Your task to perform on an android device: toggle location history Image 0: 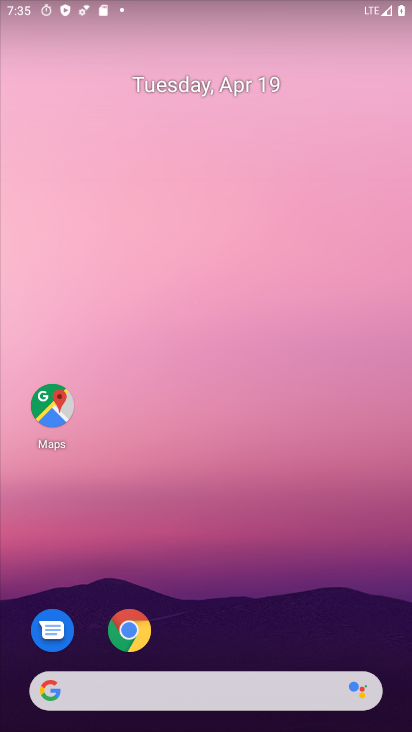
Step 0: drag from (188, 654) to (47, 14)
Your task to perform on an android device: toggle location history Image 1: 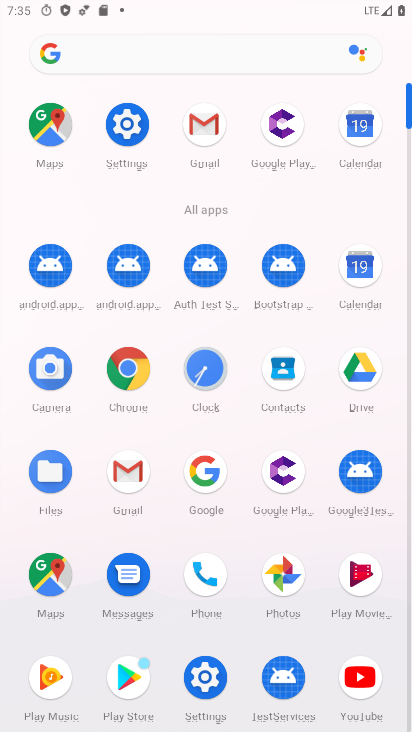
Step 1: click (131, 139)
Your task to perform on an android device: toggle location history Image 2: 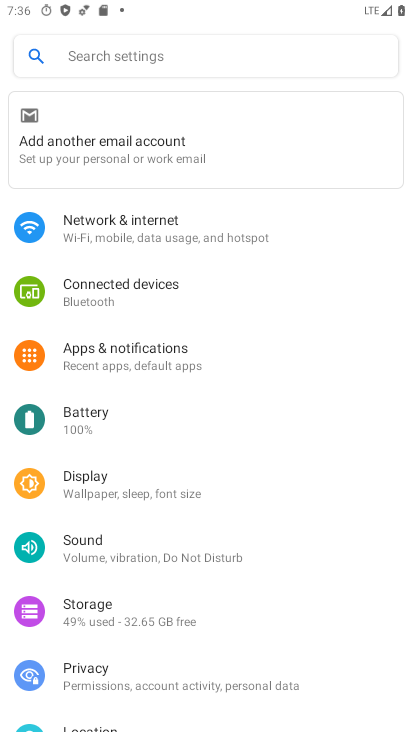
Step 2: drag from (202, 619) to (176, 305)
Your task to perform on an android device: toggle location history Image 3: 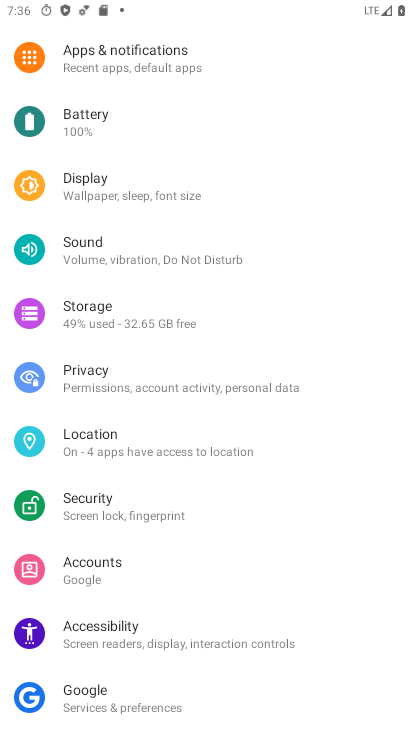
Step 3: click (134, 447)
Your task to perform on an android device: toggle location history Image 4: 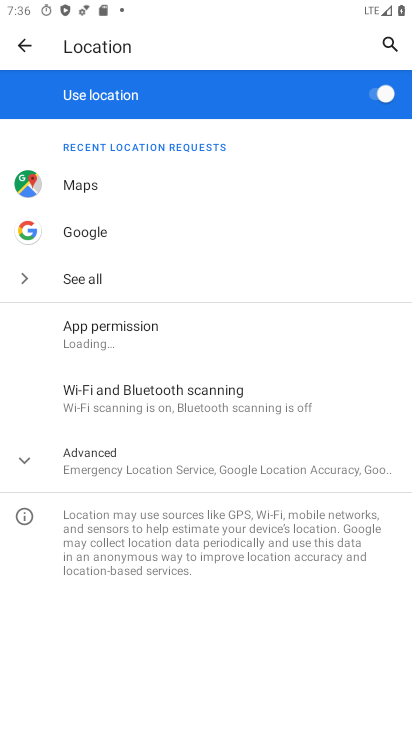
Step 4: click (111, 459)
Your task to perform on an android device: toggle location history Image 5: 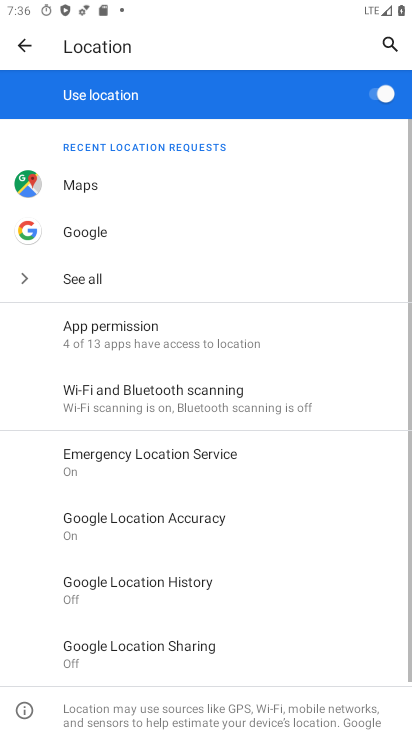
Step 5: click (124, 562)
Your task to perform on an android device: toggle location history Image 6: 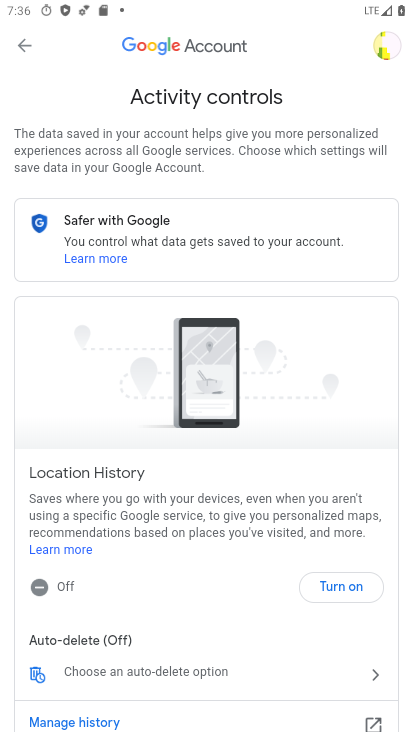
Step 6: click (330, 586)
Your task to perform on an android device: toggle location history Image 7: 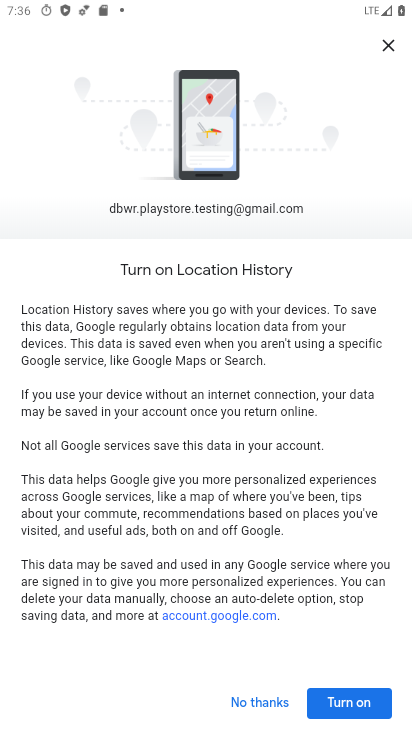
Step 7: click (359, 711)
Your task to perform on an android device: toggle location history Image 8: 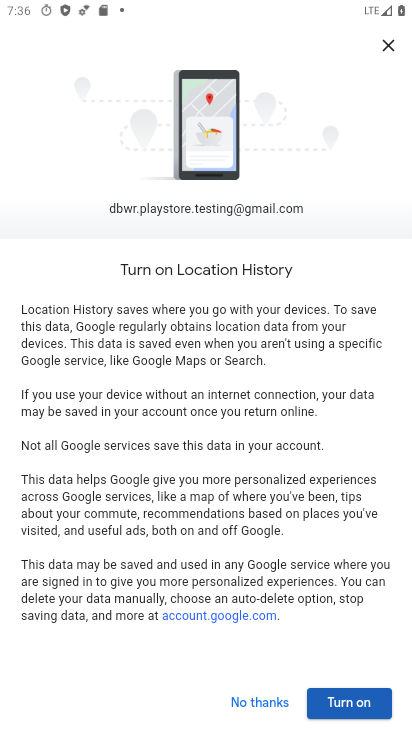
Step 8: click (338, 710)
Your task to perform on an android device: toggle location history Image 9: 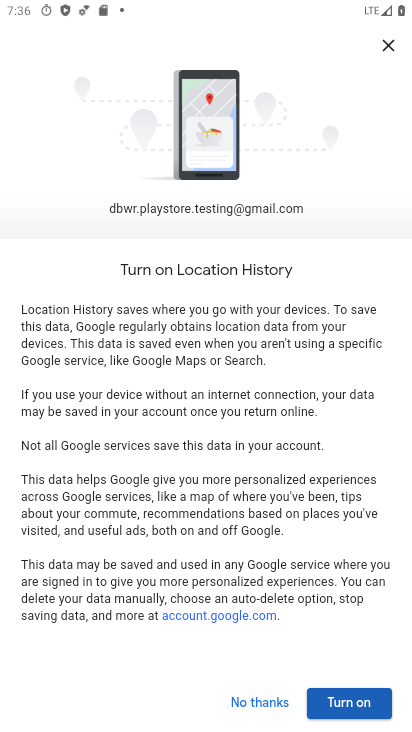
Step 9: click (348, 703)
Your task to perform on an android device: toggle location history Image 10: 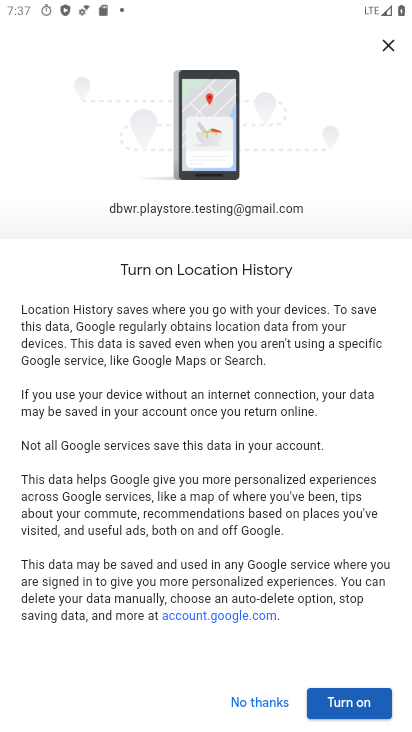
Step 10: click (321, 706)
Your task to perform on an android device: toggle location history Image 11: 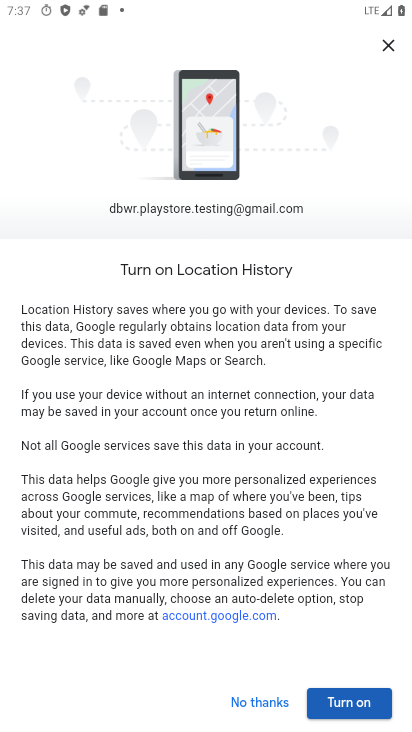
Step 11: click (349, 695)
Your task to perform on an android device: toggle location history Image 12: 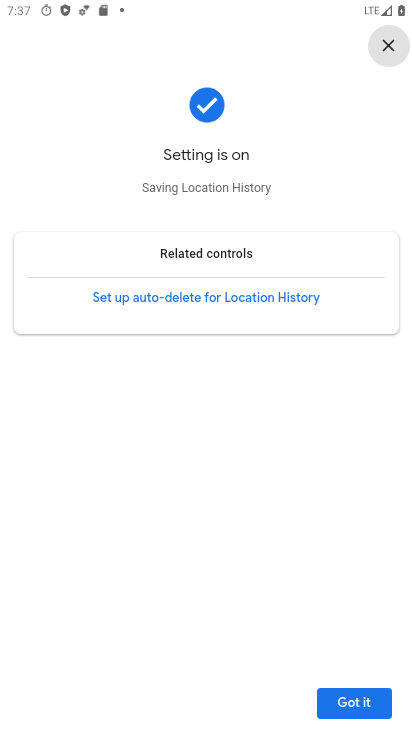
Step 12: click (347, 695)
Your task to perform on an android device: toggle location history Image 13: 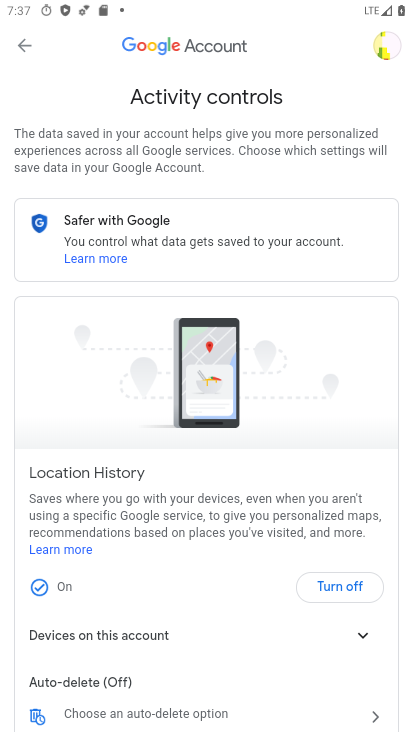
Step 13: task complete